Your task to perform on an android device: turn on airplane mode Image 0: 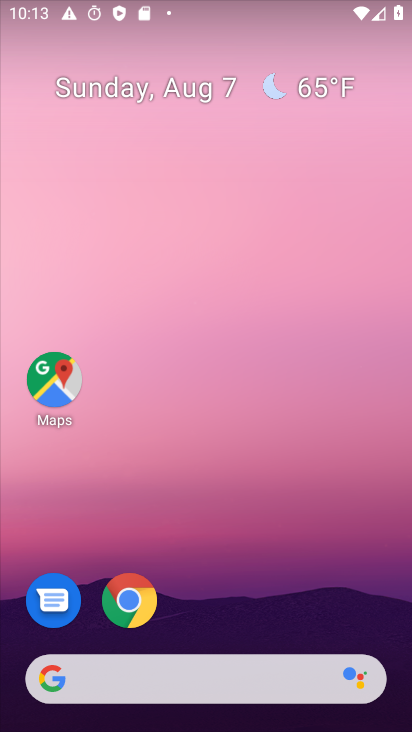
Step 0: drag from (217, 680) to (247, 114)
Your task to perform on an android device: turn on airplane mode Image 1: 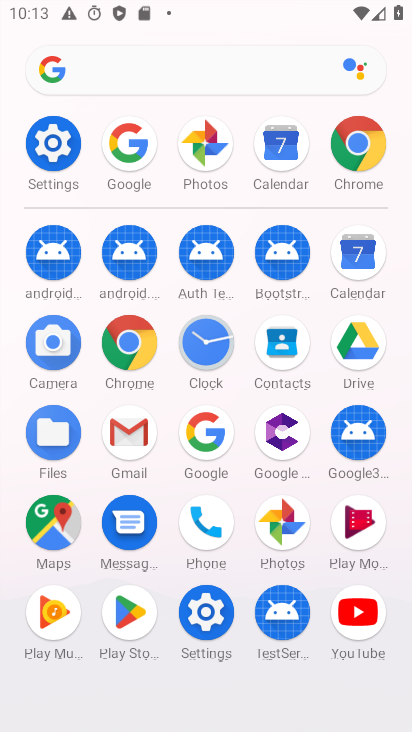
Step 1: click (52, 150)
Your task to perform on an android device: turn on airplane mode Image 2: 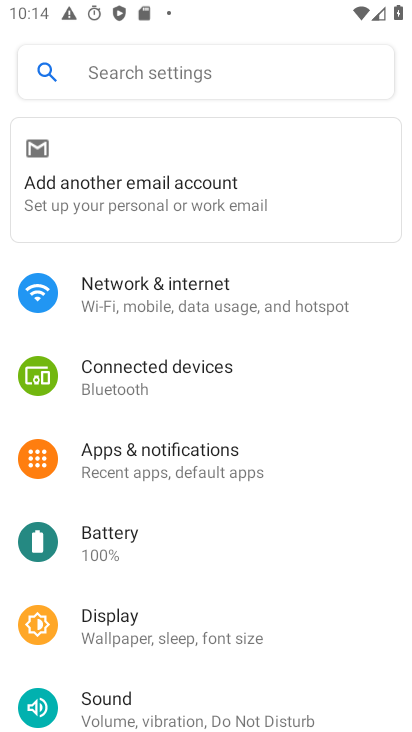
Step 2: click (192, 297)
Your task to perform on an android device: turn on airplane mode Image 3: 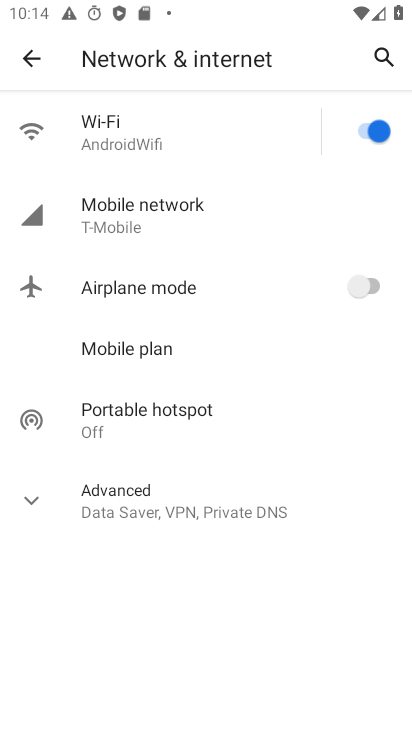
Step 3: click (211, 292)
Your task to perform on an android device: turn on airplane mode Image 4: 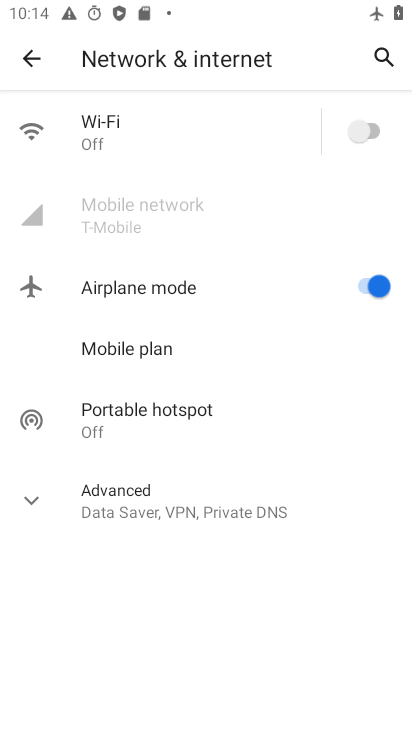
Step 4: task complete